Your task to perform on an android device: toggle airplane mode Image 0: 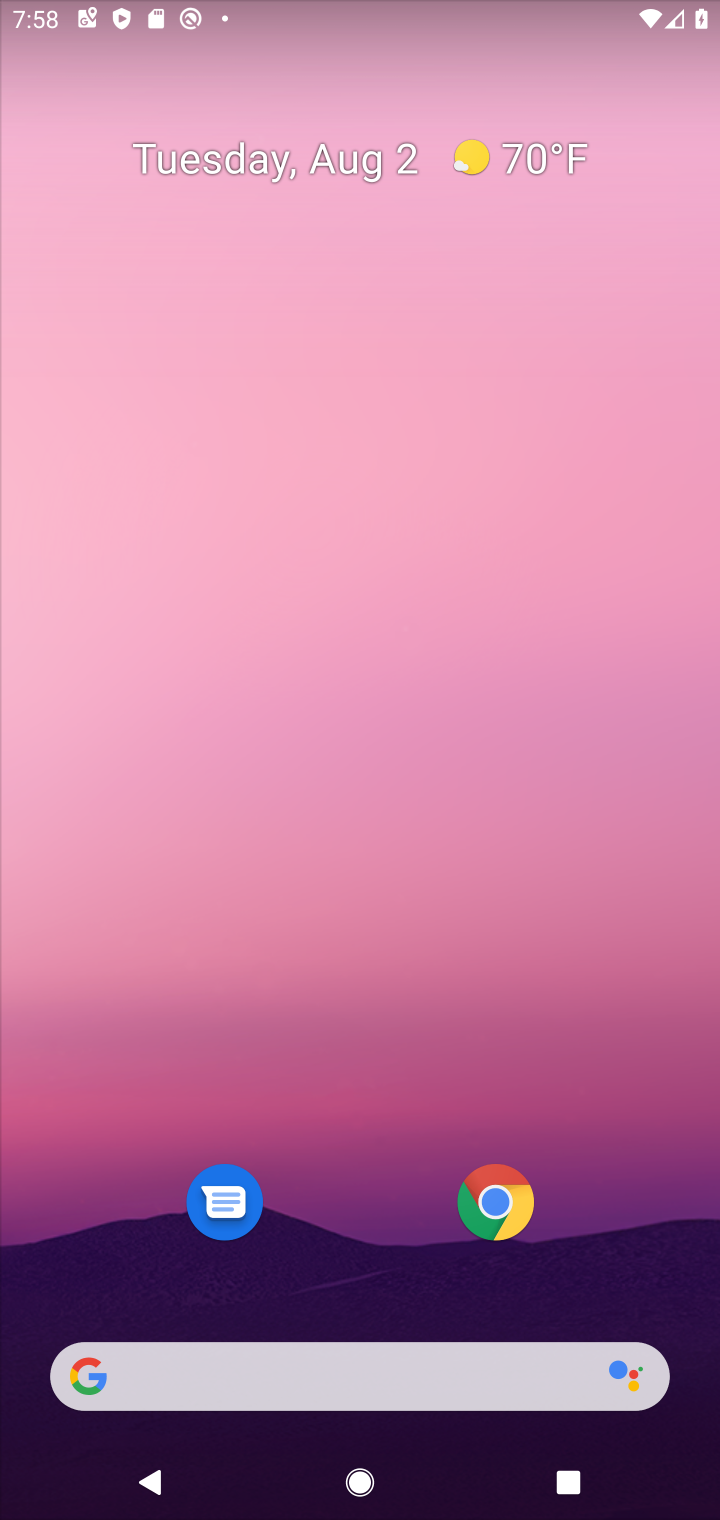
Step 0: drag from (341, 825) to (312, 0)
Your task to perform on an android device: toggle airplane mode Image 1: 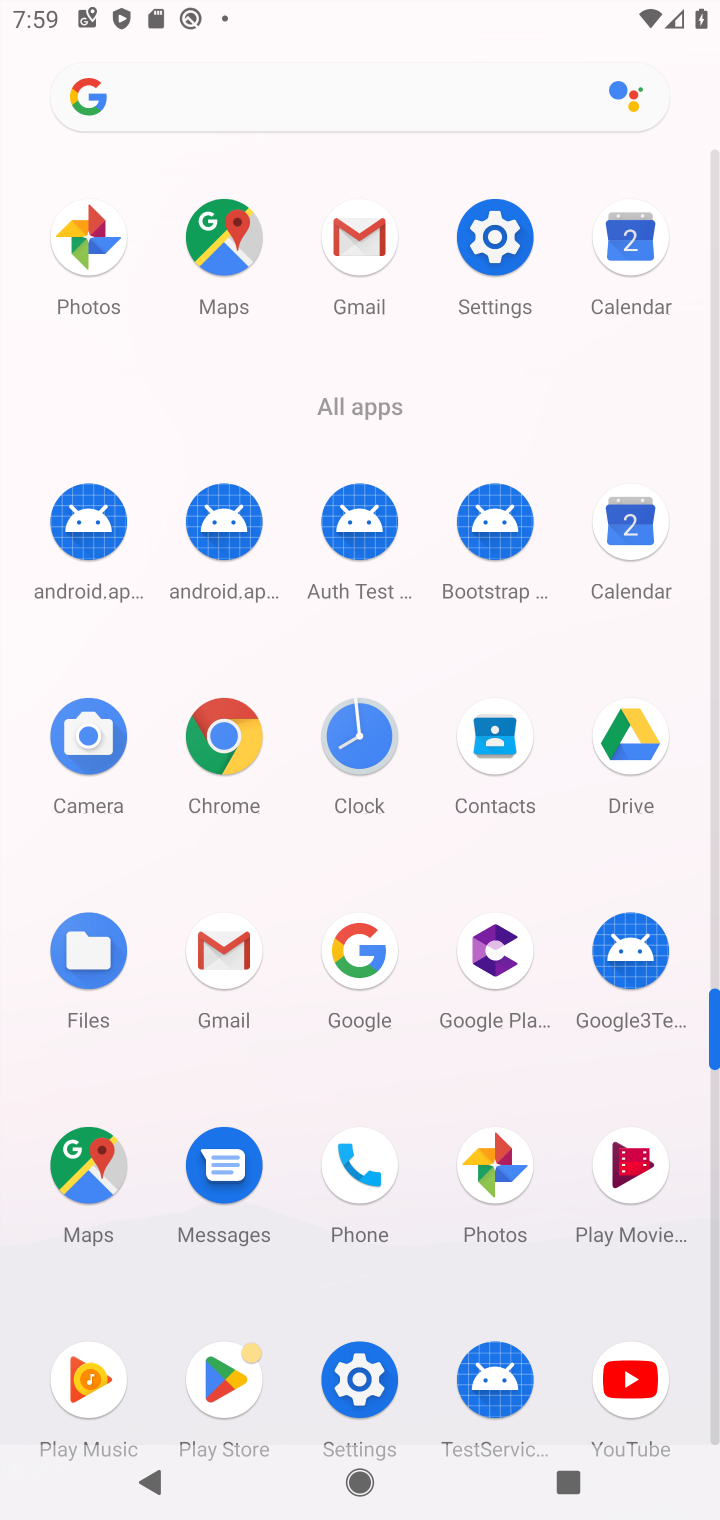
Step 1: click (488, 260)
Your task to perform on an android device: toggle airplane mode Image 2: 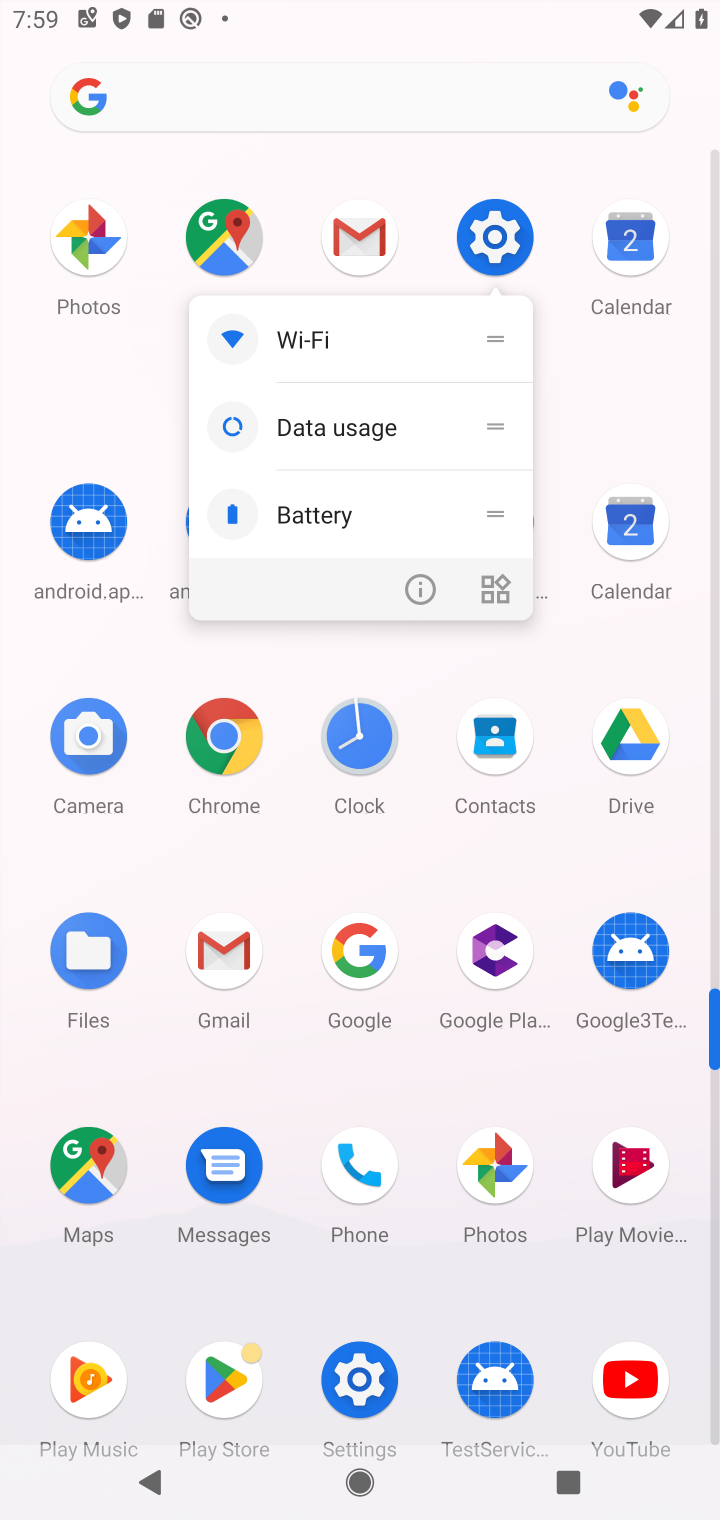
Step 2: click (491, 246)
Your task to perform on an android device: toggle airplane mode Image 3: 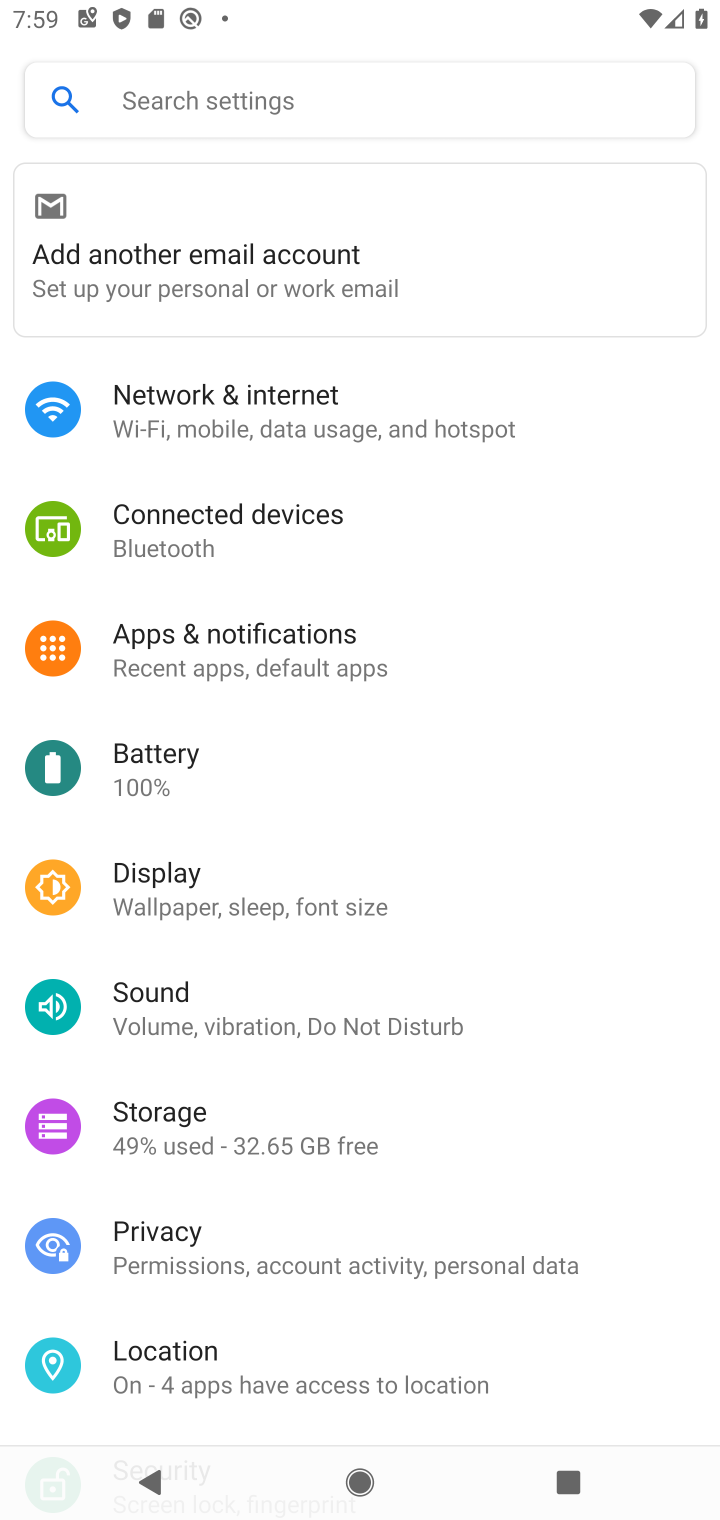
Step 3: click (209, 426)
Your task to perform on an android device: toggle airplane mode Image 4: 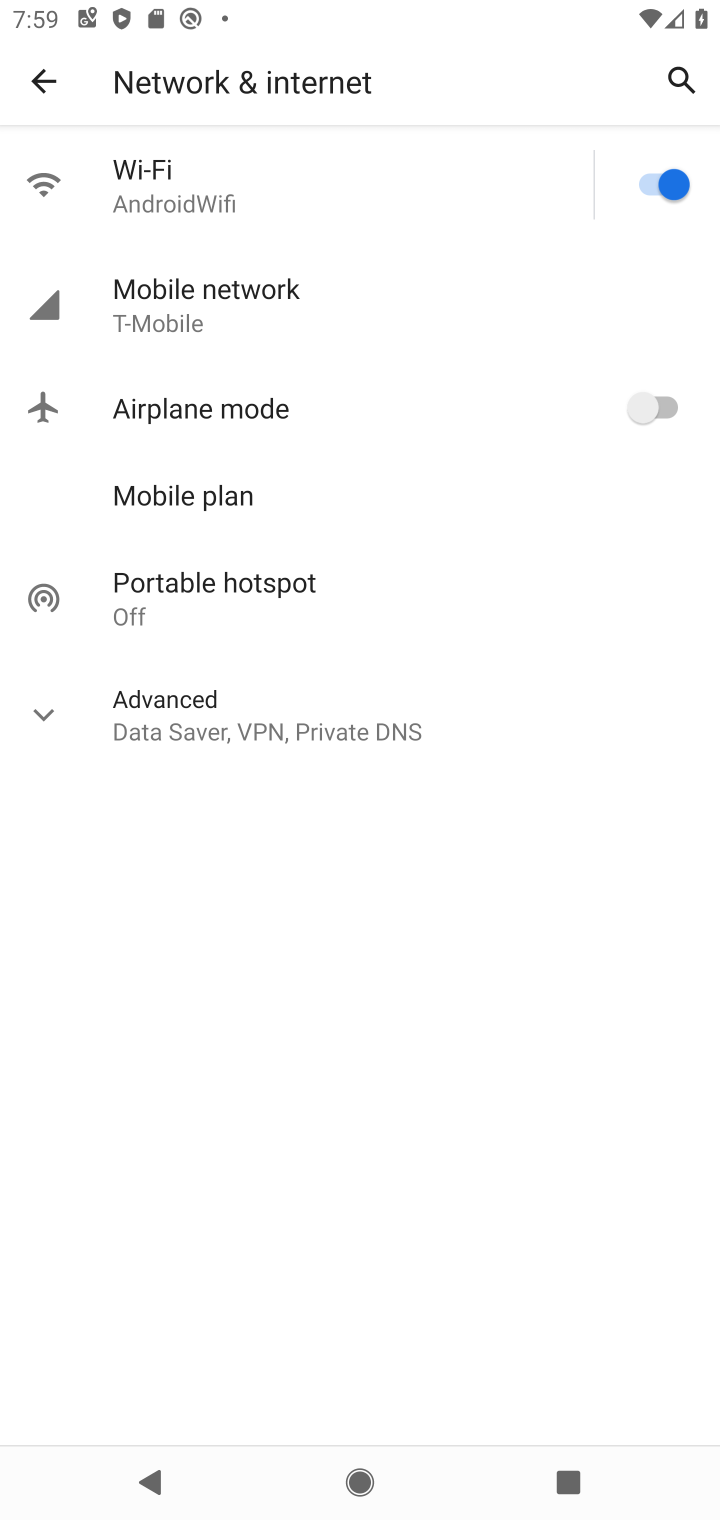
Step 4: click (626, 414)
Your task to perform on an android device: toggle airplane mode Image 5: 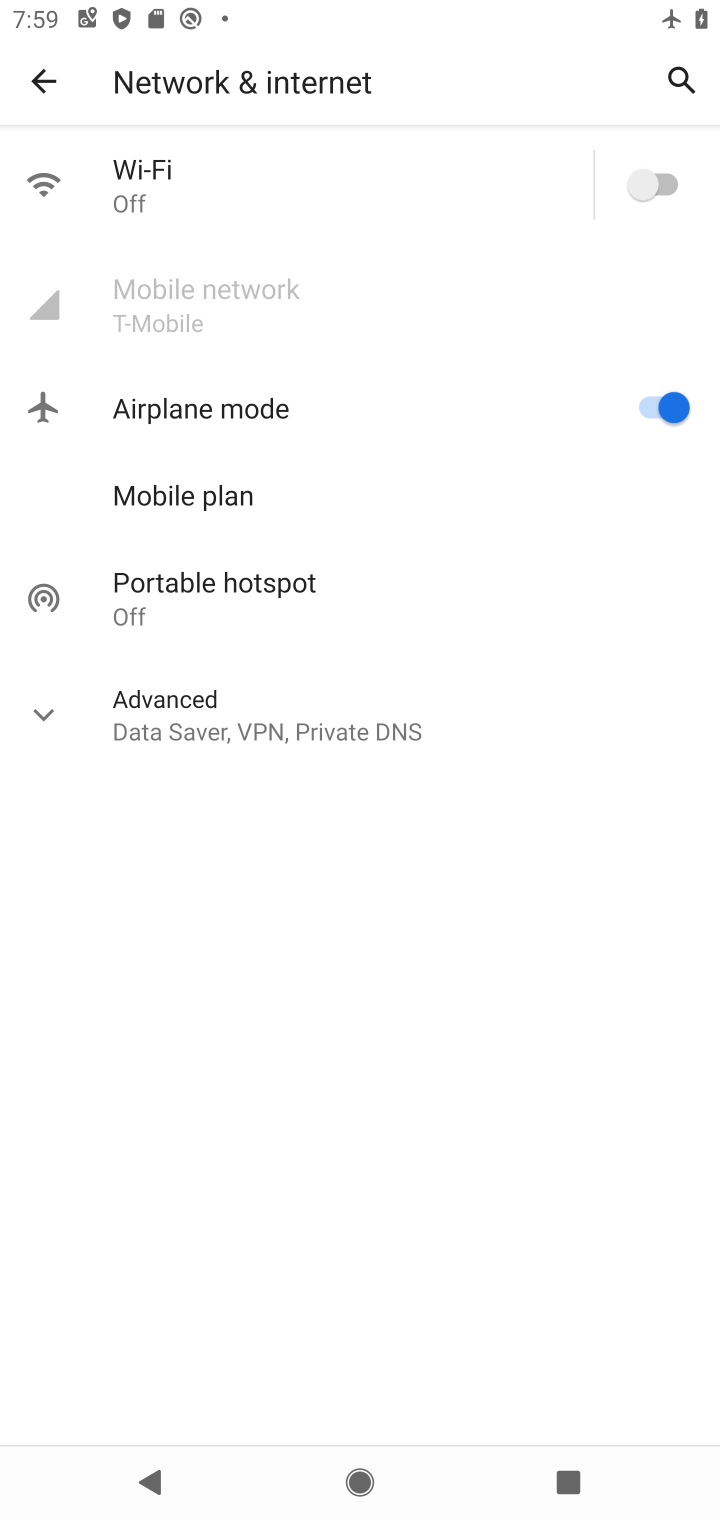
Step 5: task complete